Your task to perform on an android device: open app "Pandora - Music & Podcasts" (install if not already installed) and enter user name: "creator@yahoo.com" and password: "valuable" Image 0: 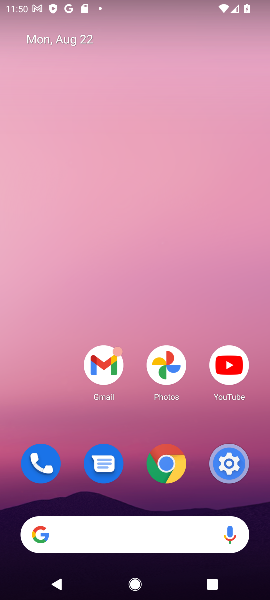
Step 0: drag from (135, 482) to (135, 142)
Your task to perform on an android device: open app "Pandora - Music & Podcasts" (install if not already installed) and enter user name: "creator@yahoo.com" and password: "valuable" Image 1: 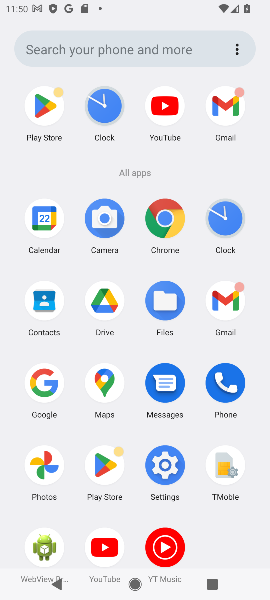
Step 1: click (106, 464)
Your task to perform on an android device: open app "Pandora - Music & Podcasts" (install if not already installed) and enter user name: "creator@yahoo.com" and password: "valuable" Image 2: 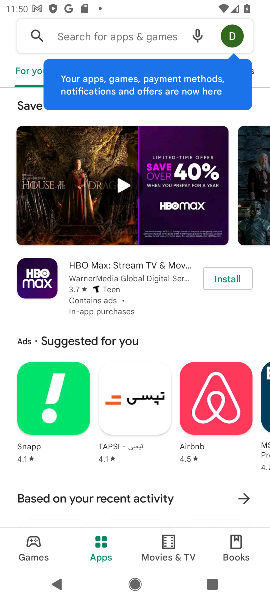
Step 2: click (138, 36)
Your task to perform on an android device: open app "Pandora - Music & Podcasts" (install if not already installed) and enter user name: "creator@yahoo.com" and password: "valuable" Image 3: 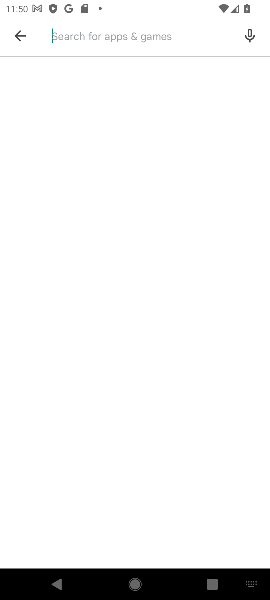
Step 3: type "Pandora - Music & Podcasts"
Your task to perform on an android device: open app "Pandora - Music & Podcasts" (install if not already installed) and enter user name: "creator@yahoo.com" and password: "valuable" Image 4: 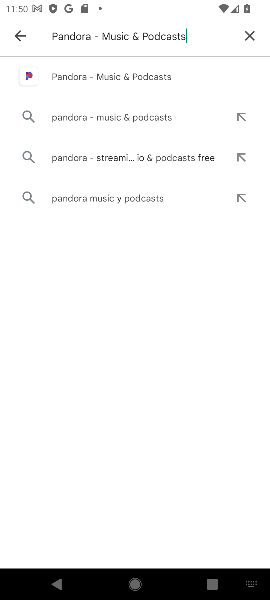
Step 4: click (61, 85)
Your task to perform on an android device: open app "Pandora - Music & Podcasts" (install if not already installed) and enter user name: "creator@yahoo.com" and password: "valuable" Image 5: 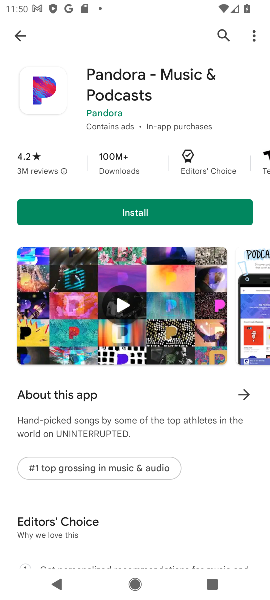
Step 5: click (152, 217)
Your task to perform on an android device: open app "Pandora - Music & Podcasts" (install if not already installed) and enter user name: "creator@yahoo.com" and password: "valuable" Image 6: 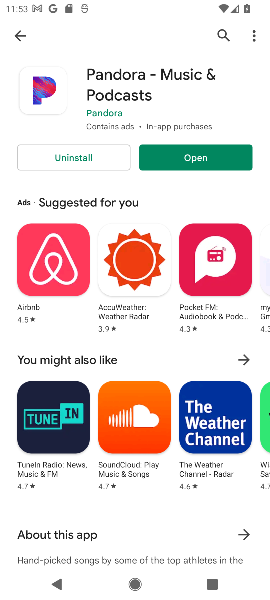
Step 6: task complete